Your task to perform on an android device: Open the web browser Image 0: 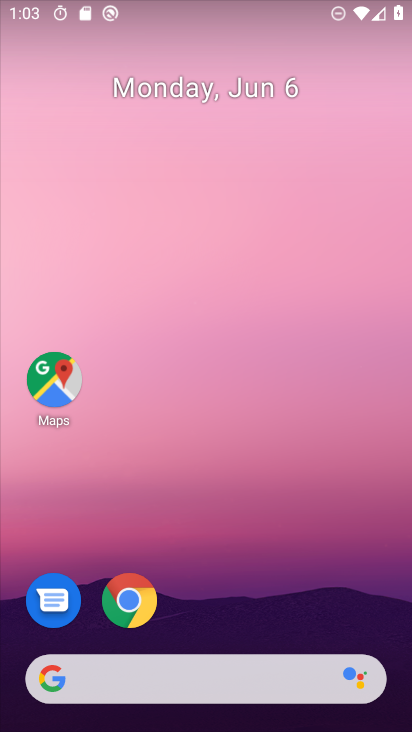
Step 0: click (140, 591)
Your task to perform on an android device: Open the web browser Image 1: 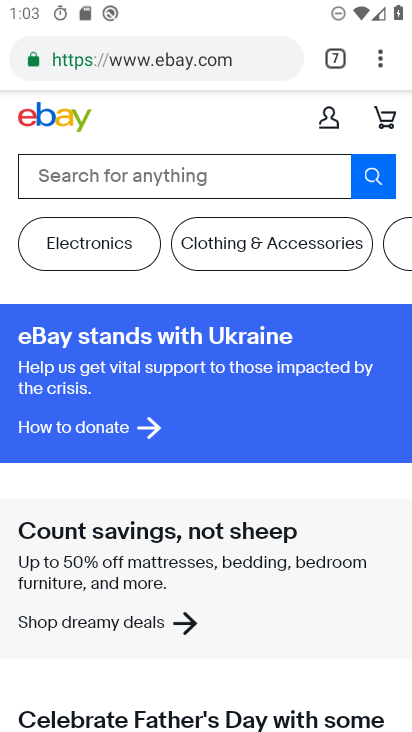
Step 1: task complete